Your task to perform on an android device: Open calendar and show me the fourth week of next month Image 0: 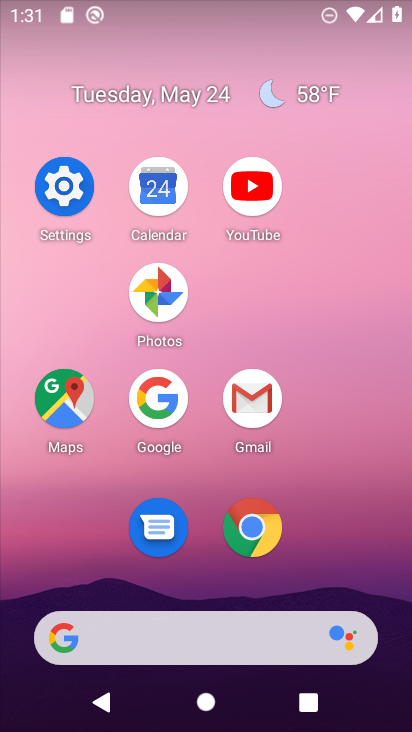
Step 0: click (144, 184)
Your task to perform on an android device: Open calendar and show me the fourth week of next month Image 1: 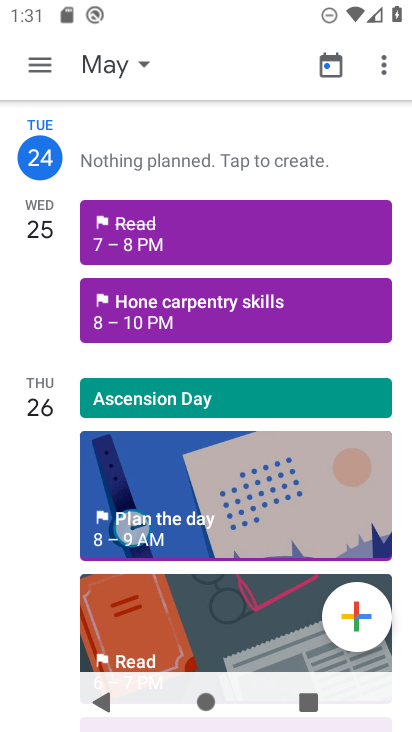
Step 1: click (120, 71)
Your task to perform on an android device: Open calendar and show me the fourth week of next month Image 2: 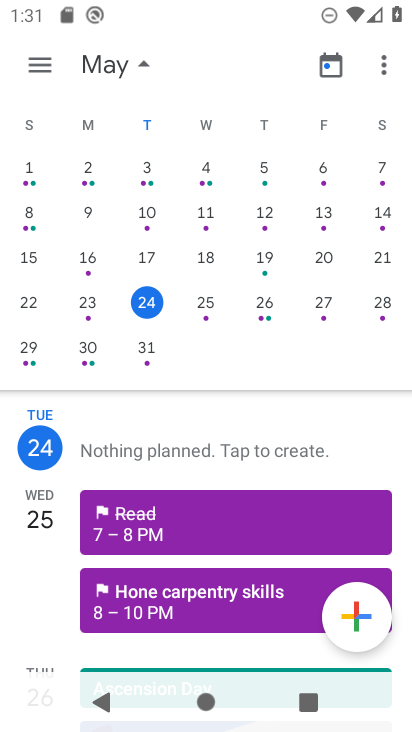
Step 2: drag from (376, 232) to (4, 19)
Your task to perform on an android device: Open calendar and show me the fourth week of next month Image 3: 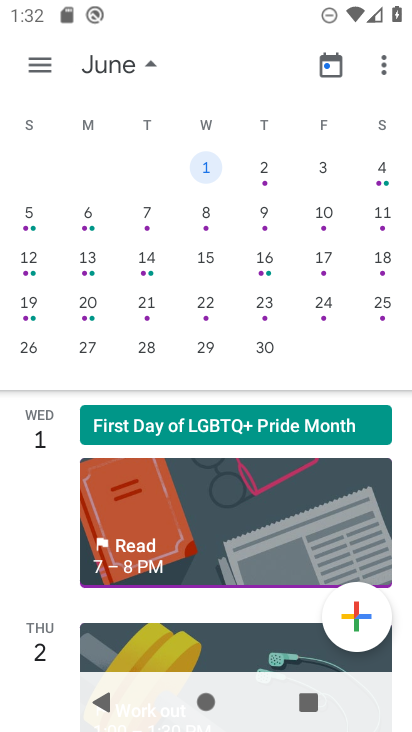
Step 3: click (29, 67)
Your task to perform on an android device: Open calendar and show me the fourth week of next month Image 4: 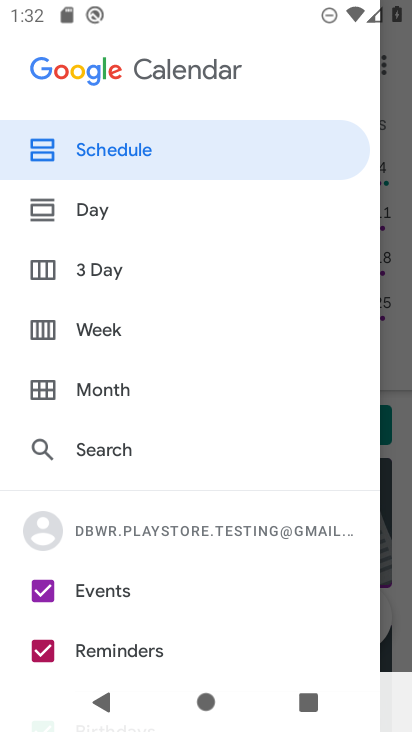
Step 4: click (104, 328)
Your task to perform on an android device: Open calendar and show me the fourth week of next month Image 5: 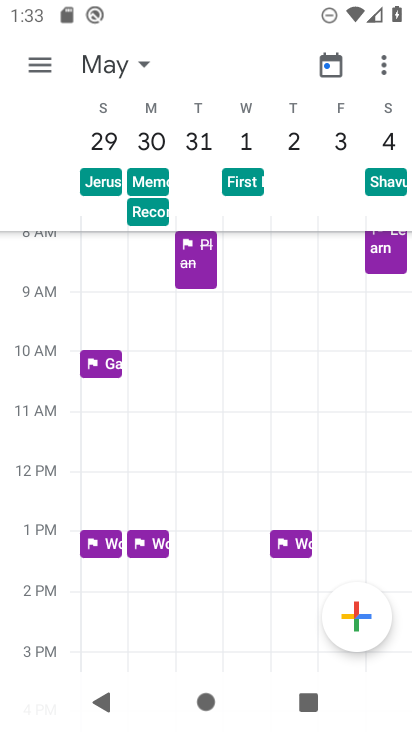
Step 5: task complete